Your task to perform on an android device: add a contact in the contacts app Image 0: 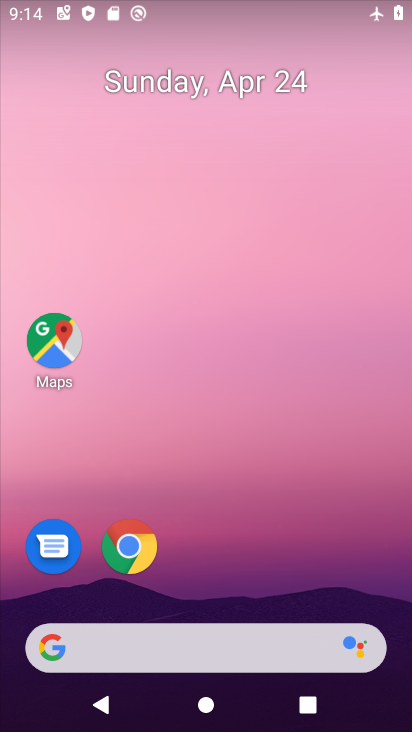
Step 0: drag from (229, 568) to (269, 245)
Your task to perform on an android device: add a contact in the contacts app Image 1: 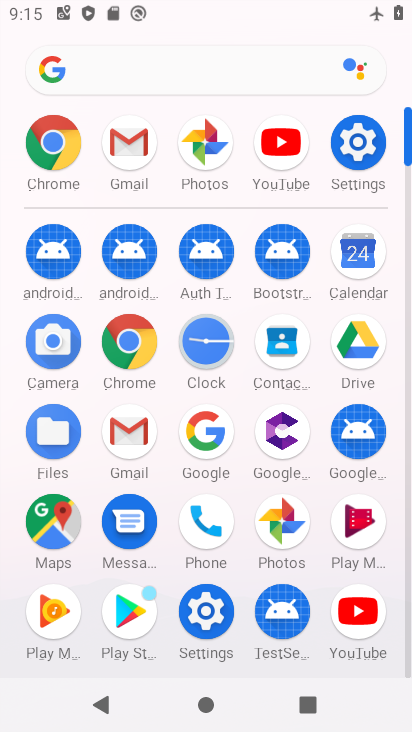
Step 1: click (190, 524)
Your task to perform on an android device: add a contact in the contacts app Image 2: 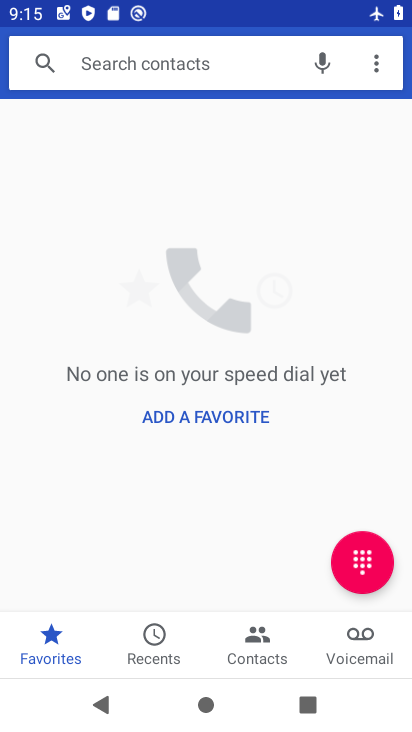
Step 2: click (192, 411)
Your task to perform on an android device: add a contact in the contacts app Image 3: 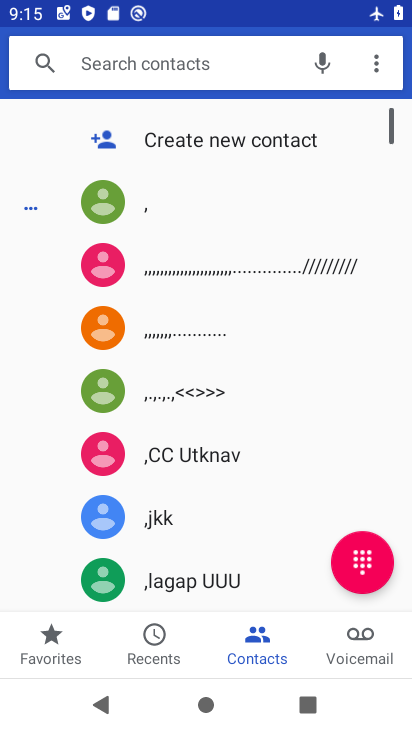
Step 3: click (210, 132)
Your task to perform on an android device: add a contact in the contacts app Image 4: 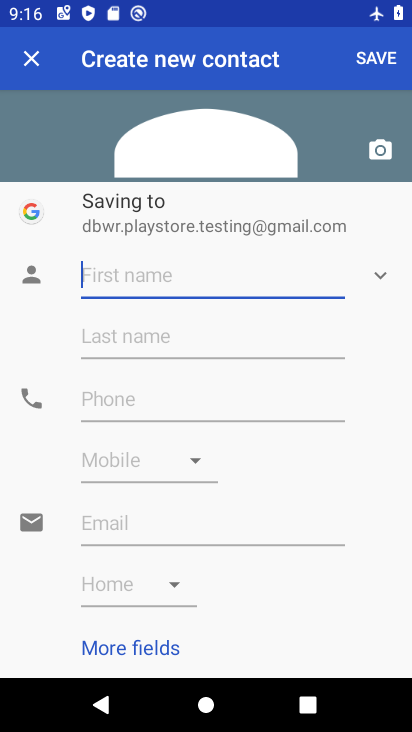
Step 4: type "ddddddddd"
Your task to perform on an android device: add a contact in the contacts app Image 5: 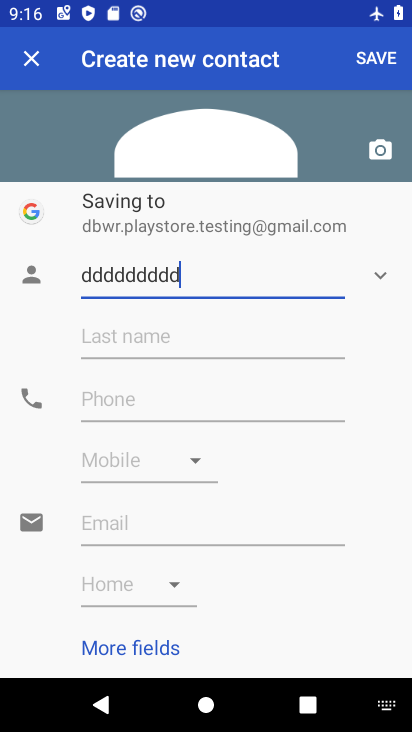
Step 5: click (244, 390)
Your task to perform on an android device: add a contact in the contacts app Image 6: 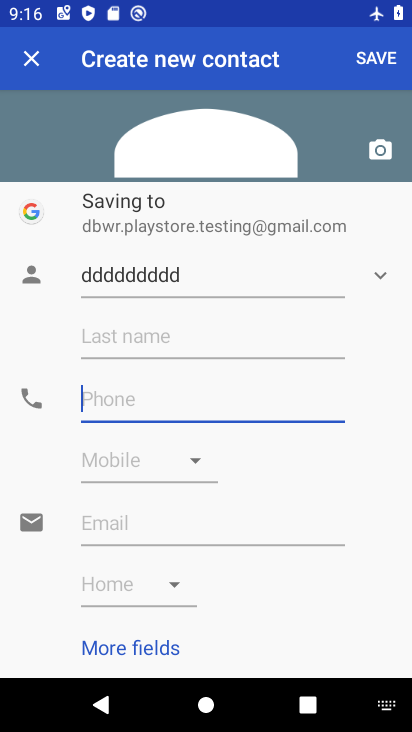
Step 6: type "8788787887"
Your task to perform on an android device: add a contact in the contacts app Image 7: 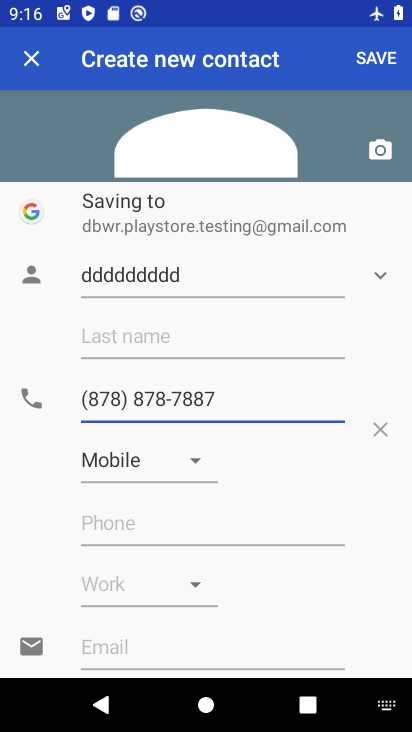
Step 7: task complete